Your task to perform on an android device: delete the emails in spam in the gmail app Image 0: 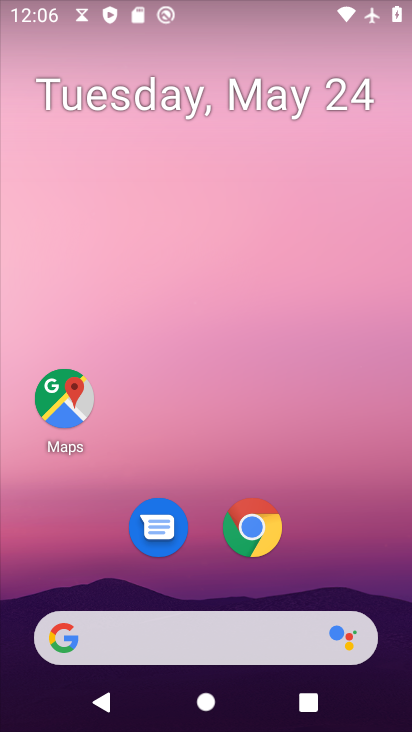
Step 0: press home button
Your task to perform on an android device: delete the emails in spam in the gmail app Image 1: 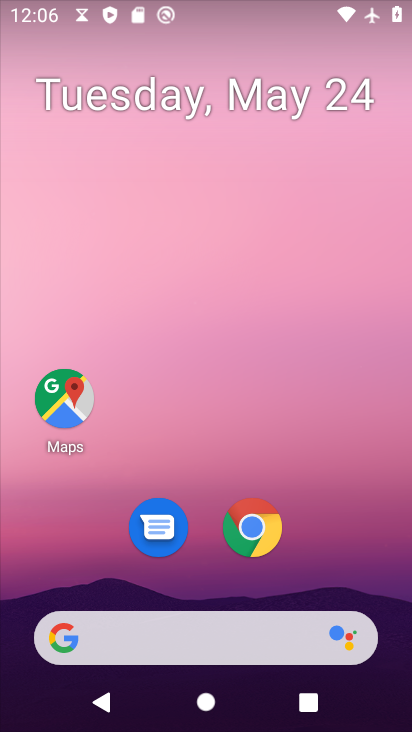
Step 1: drag from (176, 639) to (353, 263)
Your task to perform on an android device: delete the emails in spam in the gmail app Image 2: 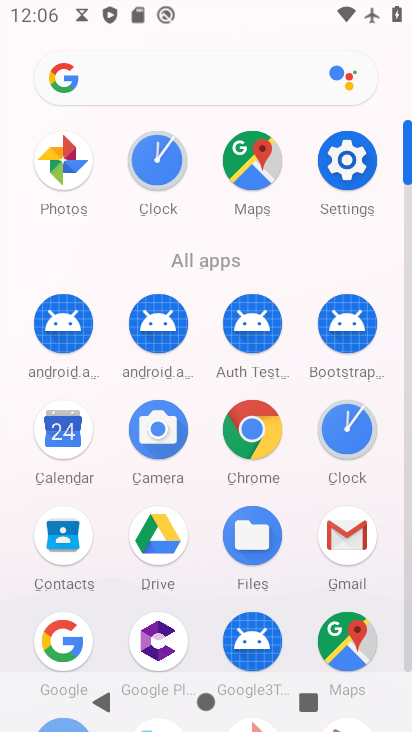
Step 2: click (336, 545)
Your task to perform on an android device: delete the emails in spam in the gmail app Image 3: 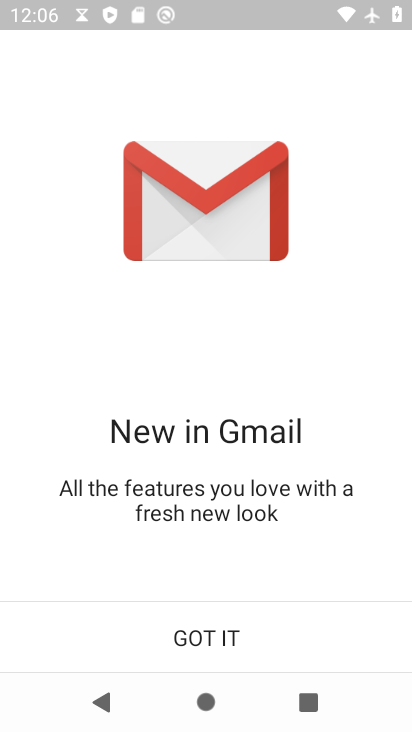
Step 3: click (211, 642)
Your task to perform on an android device: delete the emails in spam in the gmail app Image 4: 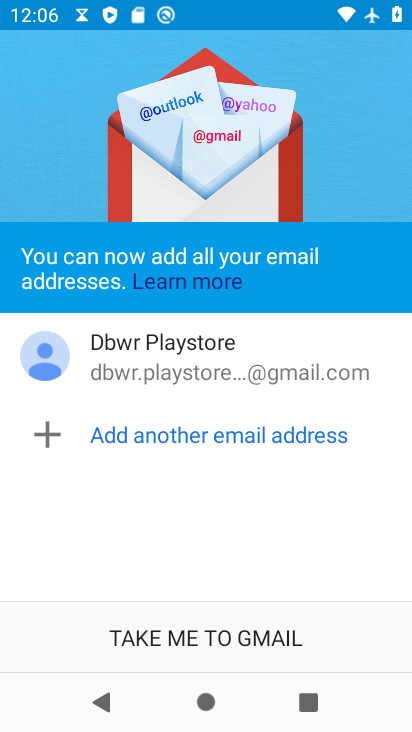
Step 4: click (211, 641)
Your task to perform on an android device: delete the emails in spam in the gmail app Image 5: 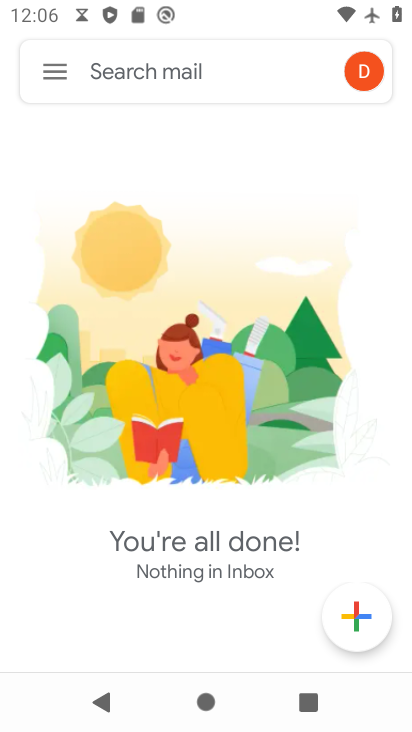
Step 5: click (58, 68)
Your task to perform on an android device: delete the emails in spam in the gmail app Image 6: 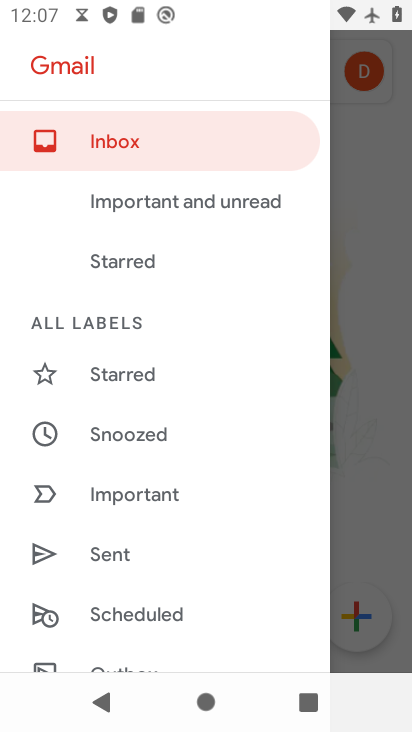
Step 6: drag from (194, 590) to (242, 289)
Your task to perform on an android device: delete the emails in spam in the gmail app Image 7: 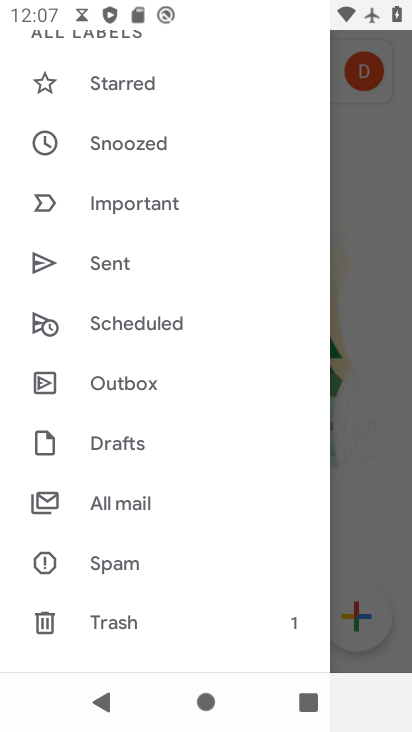
Step 7: click (133, 568)
Your task to perform on an android device: delete the emails in spam in the gmail app Image 8: 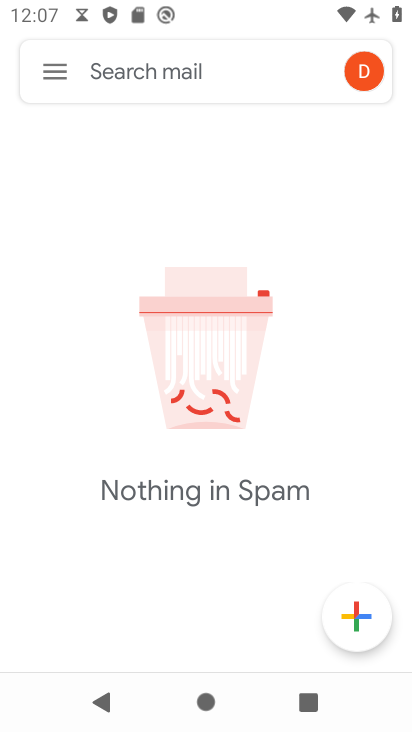
Step 8: task complete